Your task to perform on an android device: change text size in settings app Image 0: 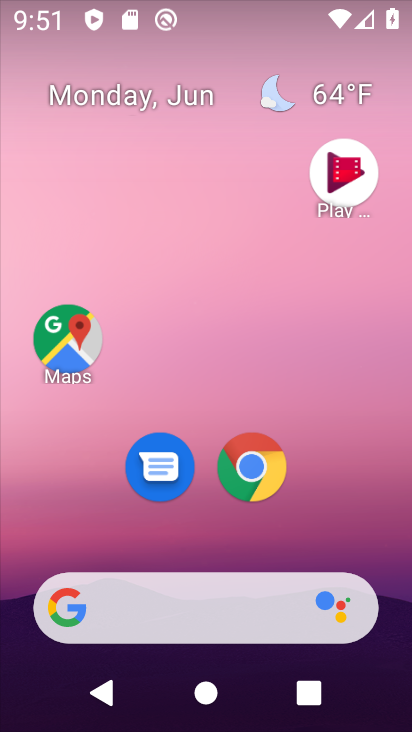
Step 0: drag from (63, 571) to (163, 206)
Your task to perform on an android device: change text size in settings app Image 1: 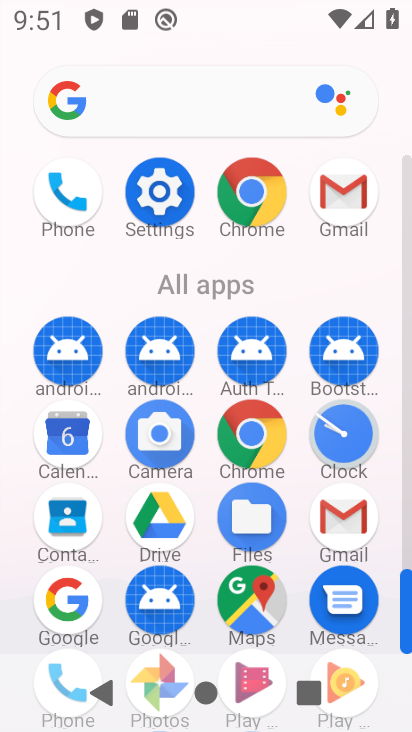
Step 1: drag from (185, 659) to (237, 361)
Your task to perform on an android device: change text size in settings app Image 2: 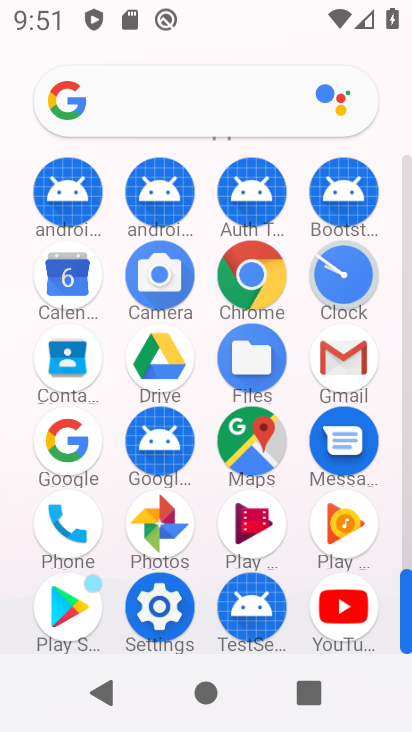
Step 2: click (160, 622)
Your task to perform on an android device: change text size in settings app Image 3: 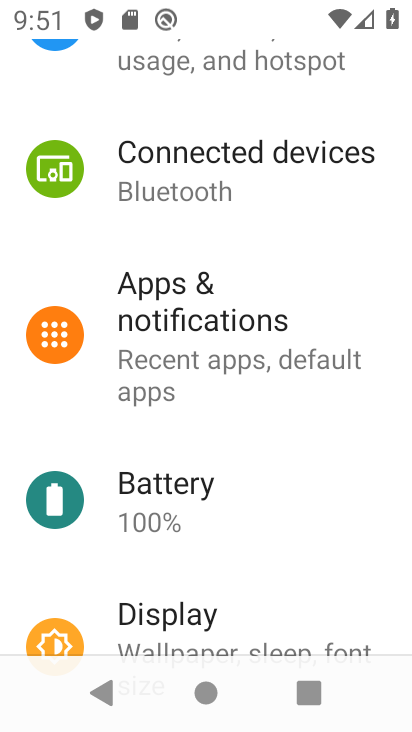
Step 3: drag from (198, 602) to (270, 361)
Your task to perform on an android device: change text size in settings app Image 4: 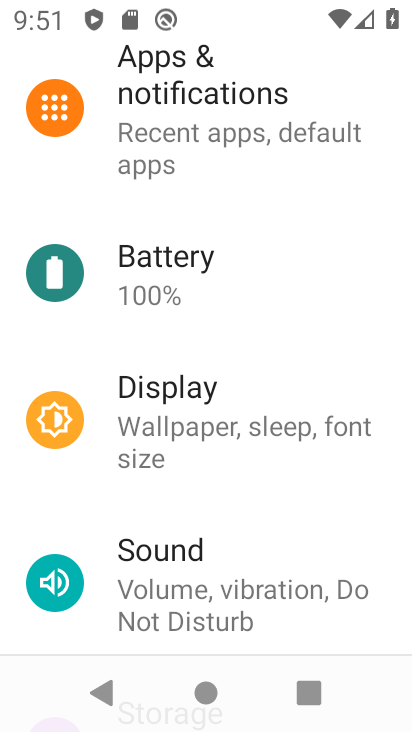
Step 4: click (168, 436)
Your task to perform on an android device: change text size in settings app Image 5: 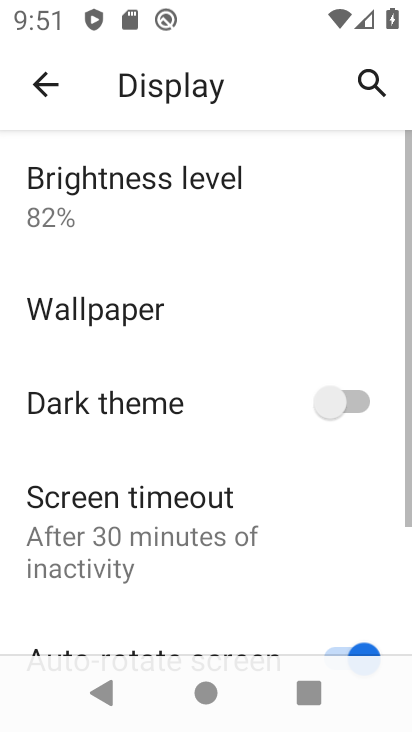
Step 5: drag from (166, 555) to (283, 145)
Your task to perform on an android device: change text size in settings app Image 6: 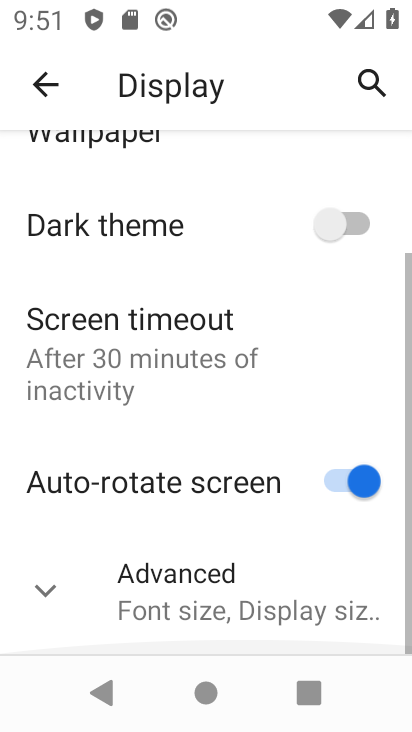
Step 6: click (172, 587)
Your task to perform on an android device: change text size in settings app Image 7: 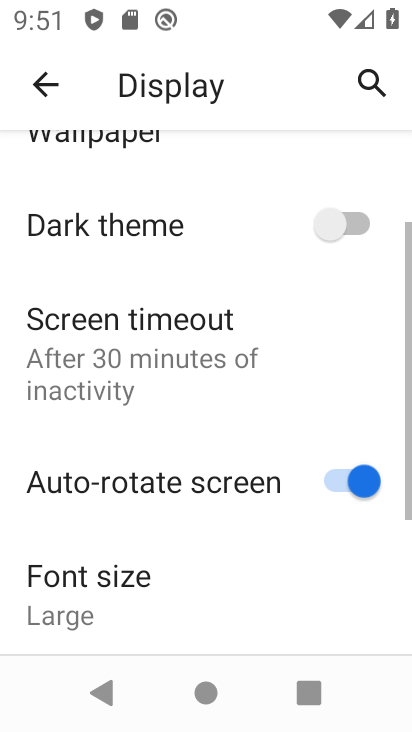
Step 7: drag from (172, 586) to (295, 173)
Your task to perform on an android device: change text size in settings app Image 8: 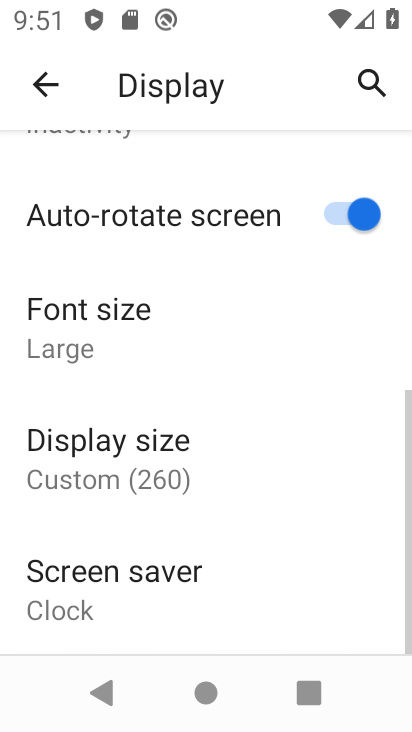
Step 8: click (158, 346)
Your task to perform on an android device: change text size in settings app Image 9: 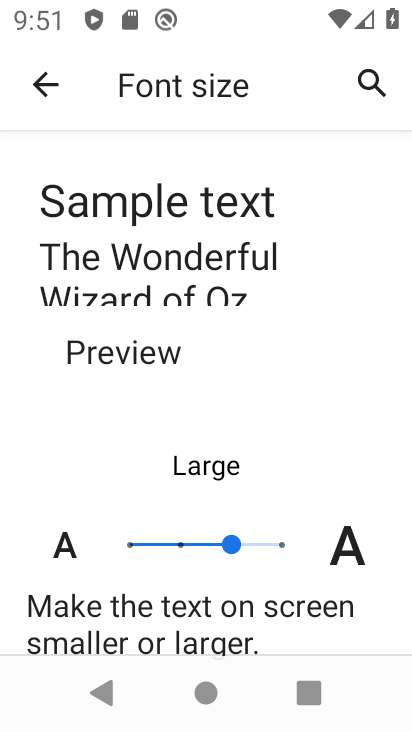
Step 9: click (181, 537)
Your task to perform on an android device: change text size in settings app Image 10: 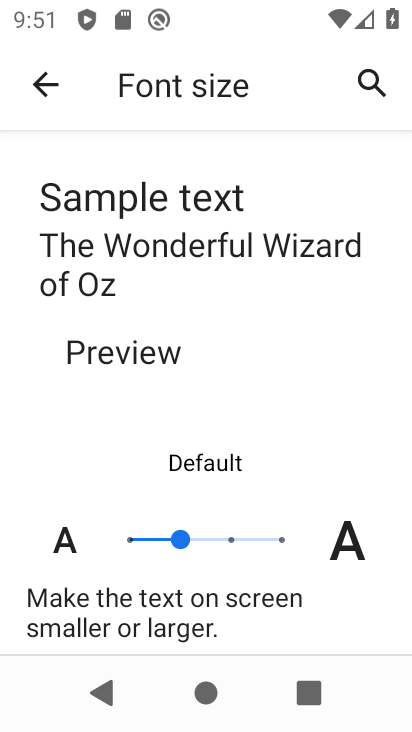
Step 10: task complete